Your task to perform on an android device: remove spam from my inbox in the gmail app Image 0: 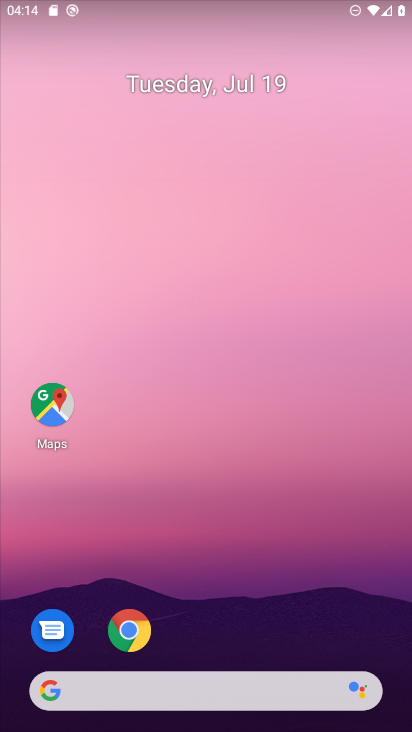
Step 0: drag from (190, 488) to (139, 137)
Your task to perform on an android device: remove spam from my inbox in the gmail app Image 1: 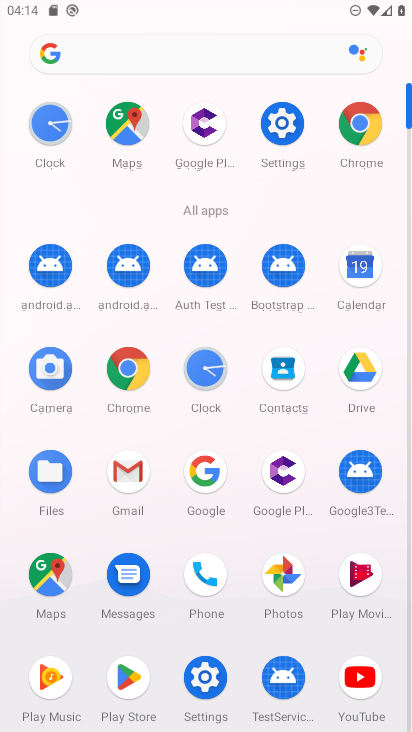
Step 1: click (134, 472)
Your task to perform on an android device: remove spam from my inbox in the gmail app Image 2: 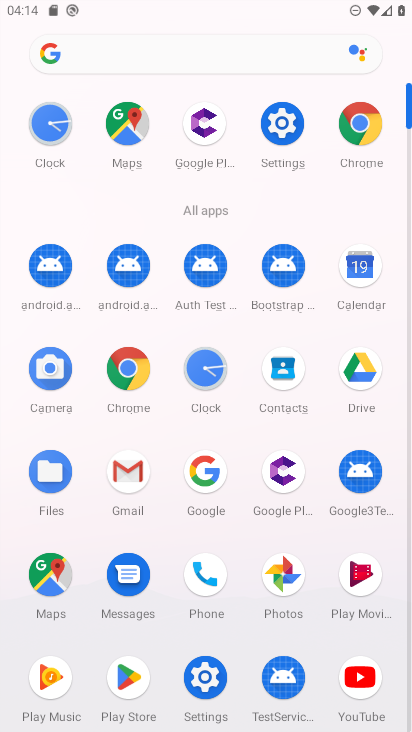
Step 2: click (135, 473)
Your task to perform on an android device: remove spam from my inbox in the gmail app Image 3: 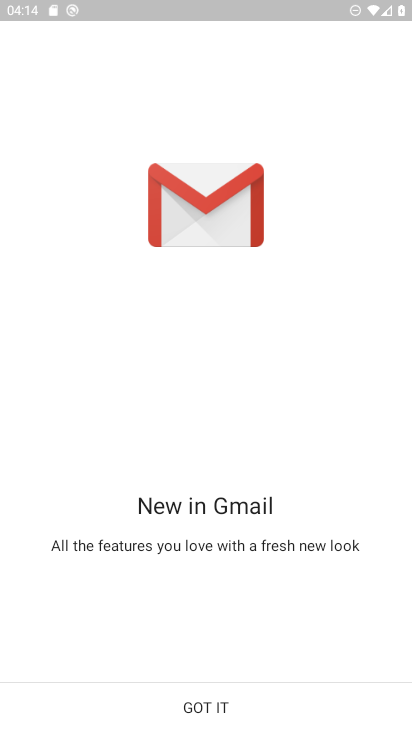
Step 3: click (201, 690)
Your task to perform on an android device: remove spam from my inbox in the gmail app Image 4: 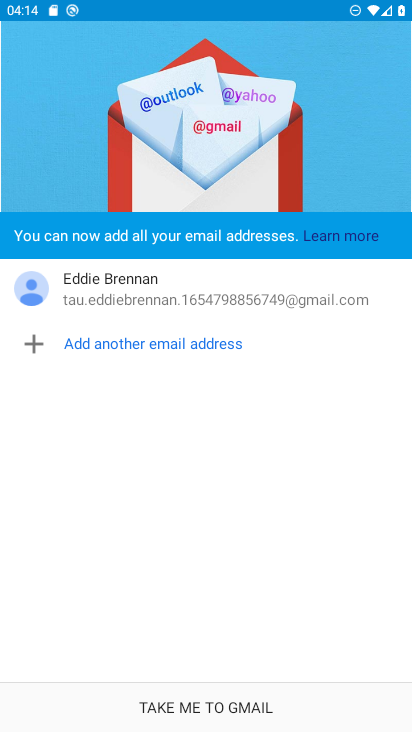
Step 4: click (234, 719)
Your task to perform on an android device: remove spam from my inbox in the gmail app Image 5: 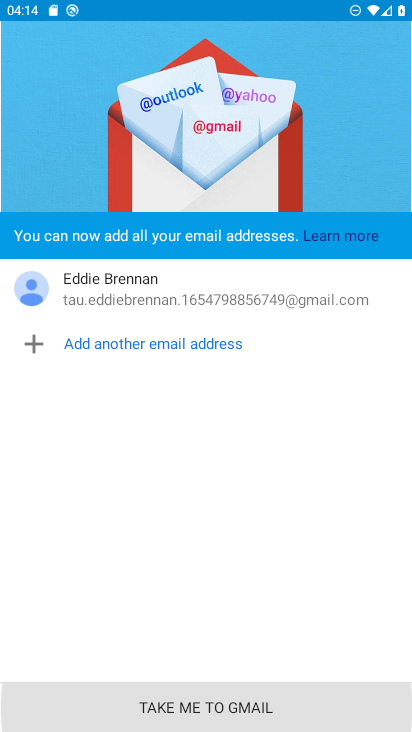
Step 5: click (234, 709)
Your task to perform on an android device: remove spam from my inbox in the gmail app Image 6: 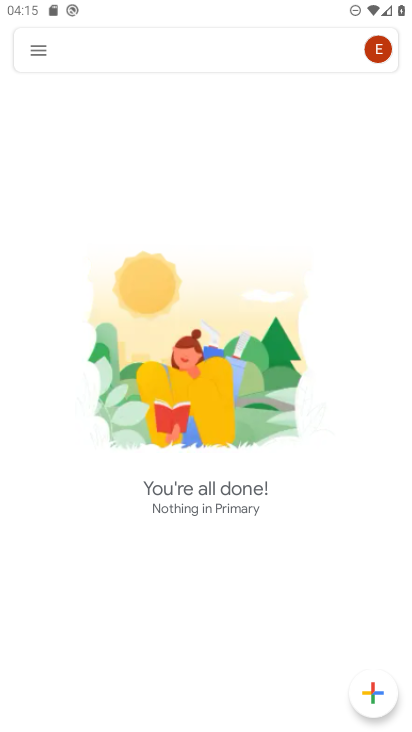
Step 6: click (39, 54)
Your task to perform on an android device: remove spam from my inbox in the gmail app Image 7: 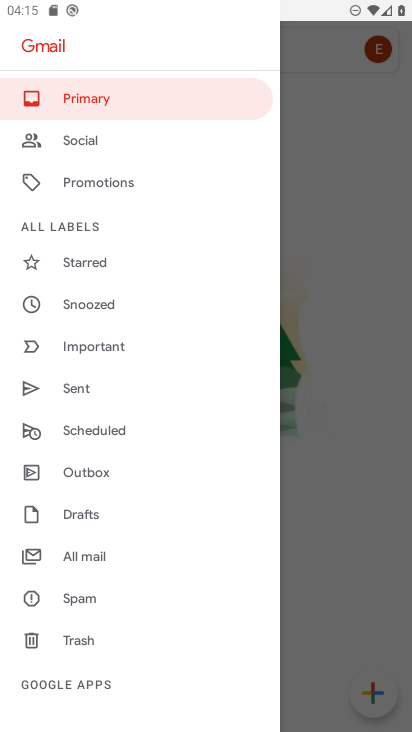
Step 7: click (81, 603)
Your task to perform on an android device: remove spam from my inbox in the gmail app Image 8: 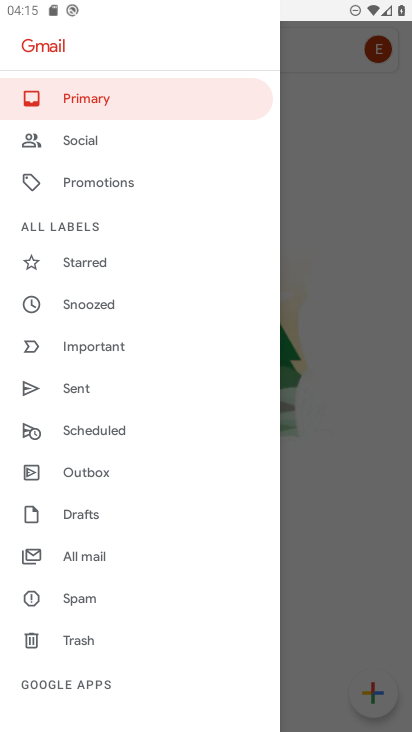
Step 8: click (83, 606)
Your task to perform on an android device: remove spam from my inbox in the gmail app Image 9: 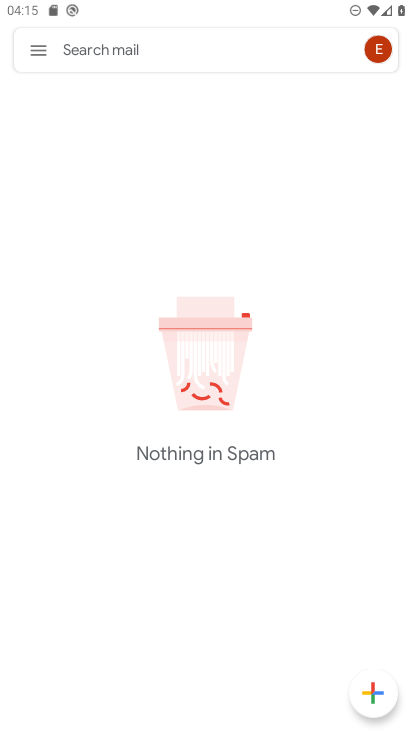
Step 9: task complete